Your task to perform on an android device: Search for the best coffee tables on Crate & Barrel Image 0: 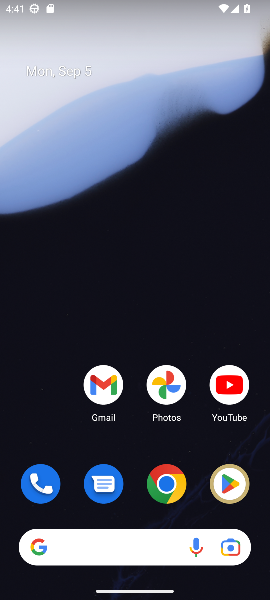
Step 0: click (168, 484)
Your task to perform on an android device: Search for the best coffee tables on Crate & Barrel Image 1: 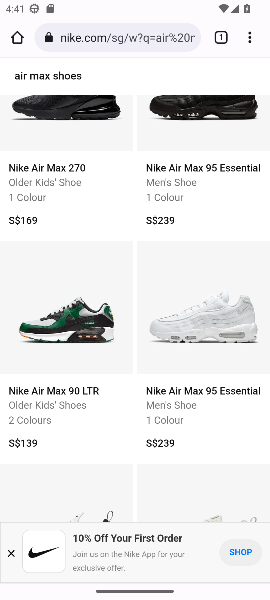
Step 1: click (143, 35)
Your task to perform on an android device: Search for the best coffee tables on Crate & Barrel Image 2: 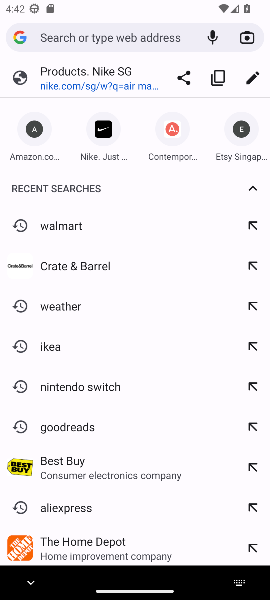
Step 2: type "Crate & Barrel"
Your task to perform on an android device: Search for the best coffee tables on Crate & Barrel Image 3: 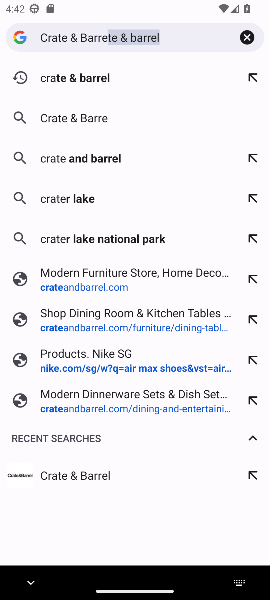
Step 3: press enter
Your task to perform on an android device: Search for the best coffee tables on Crate & Barrel Image 4: 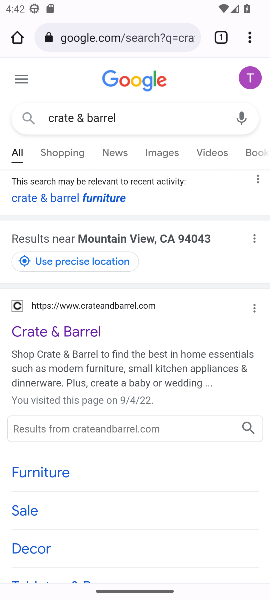
Step 4: click (49, 331)
Your task to perform on an android device: Search for the best coffee tables on Crate & Barrel Image 5: 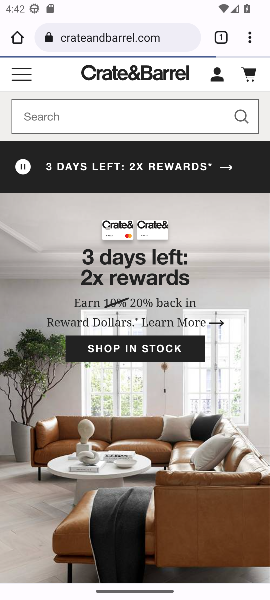
Step 5: click (100, 118)
Your task to perform on an android device: Search for the best coffee tables on Crate & Barrel Image 6: 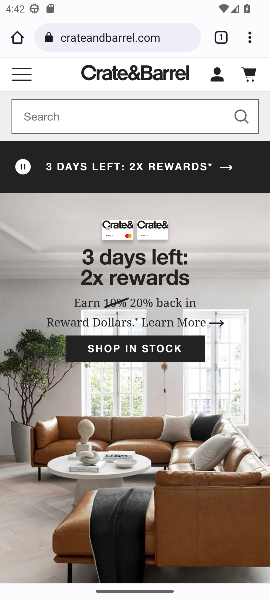
Step 6: click (100, 118)
Your task to perform on an android device: Search for the best coffee tables on Crate & Barrel Image 7: 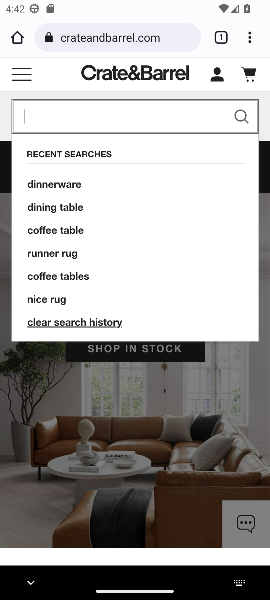
Step 7: type "coffee tables"
Your task to perform on an android device: Search for the best coffee tables on Crate & Barrel Image 8: 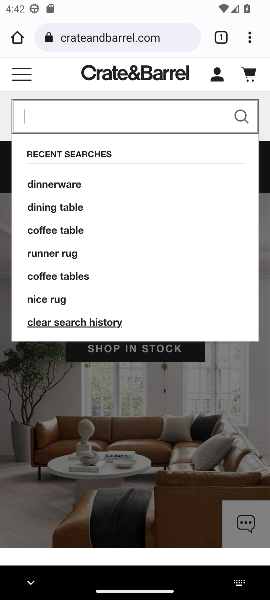
Step 8: press enter
Your task to perform on an android device: Search for the best coffee tables on Crate & Barrel Image 9: 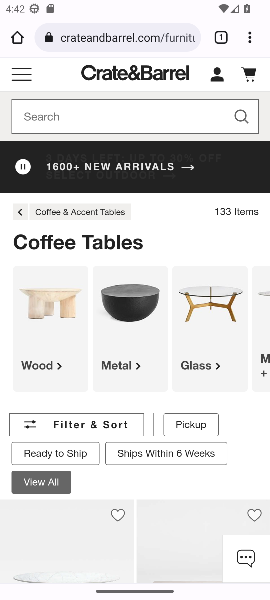
Step 9: task complete